Your task to perform on an android device: check storage Image 0: 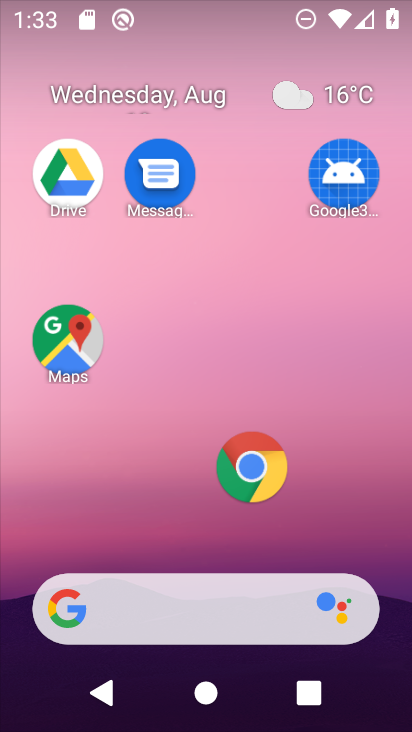
Step 0: drag from (177, 523) to (273, 95)
Your task to perform on an android device: check storage Image 1: 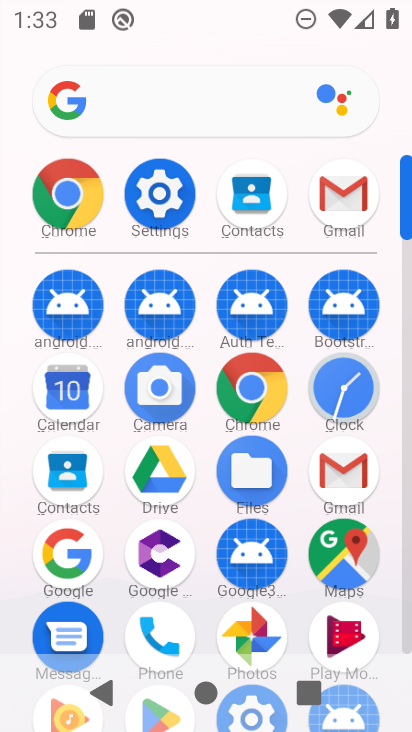
Step 1: click (166, 172)
Your task to perform on an android device: check storage Image 2: 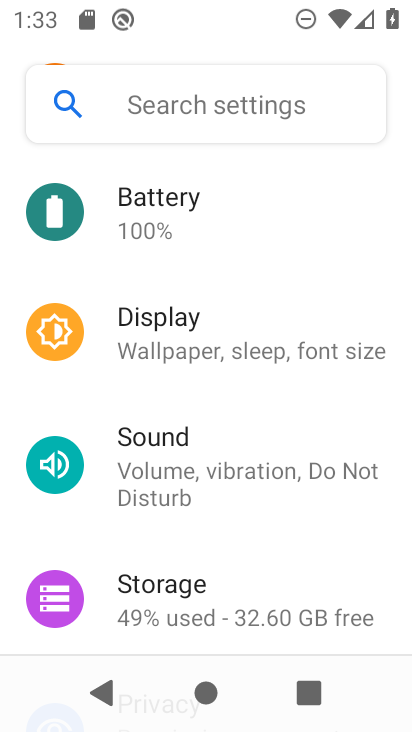
Step 2: click (122, 580)
Your task to perform on an android device: check storage Image 3: 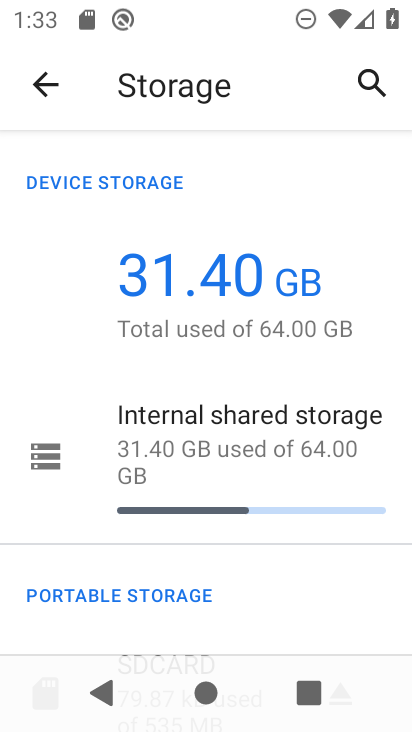
Step 3: task complete